Your task to perform on an android device: see creations saved in the google photos Image 0: 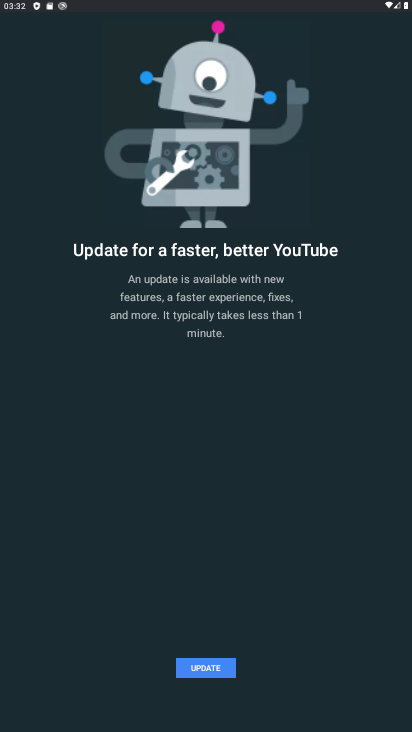
Step 0: press home button
Your task to perform on an android device: see creations saved in the google photos Image 1: 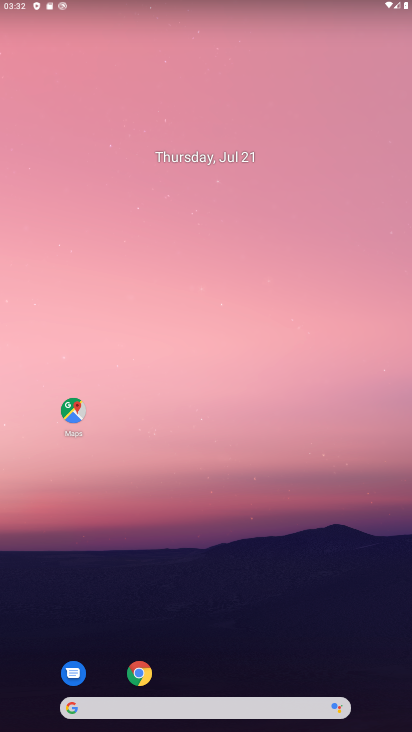
Step 1: drag from (271, 473) to (271, 143)
Your task to perform on an android device: see creations saved in the google photos Image 2: 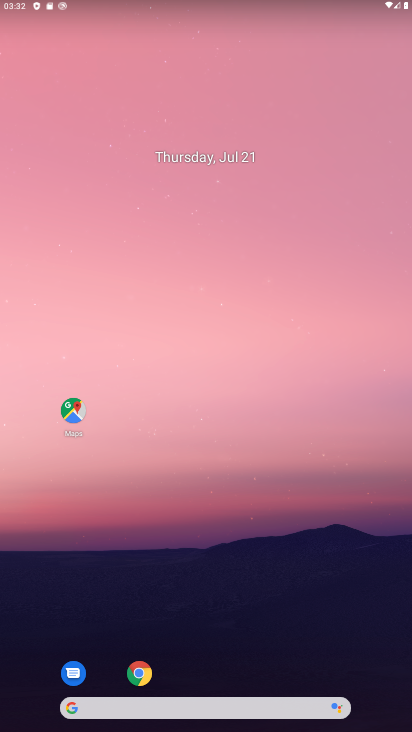
Step 2: drag from (286, 637) to (283, 107)
Your task to perform on an android device: see creations saved in the google photos Image 3: 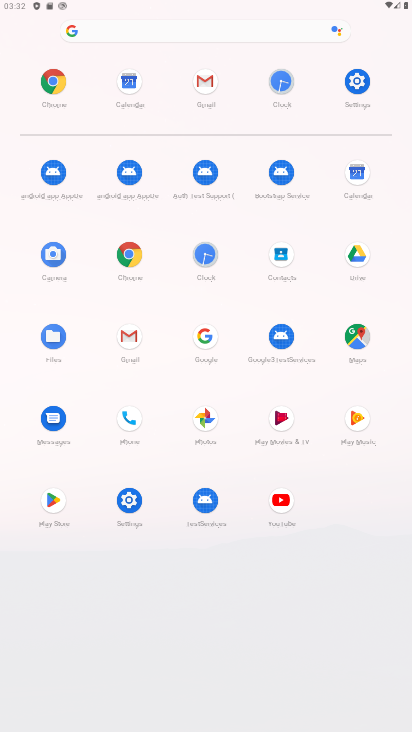
Step 3: click (205, 412)
Your task to perform on an android device: see creations saved in the google photos Image 4: 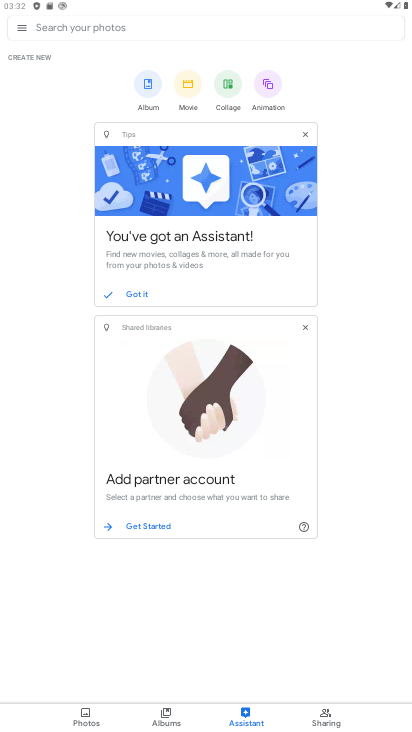
Step 4: click (315, 719)
Your task to perform on an android device: see creations saved in the google photos Image 5: 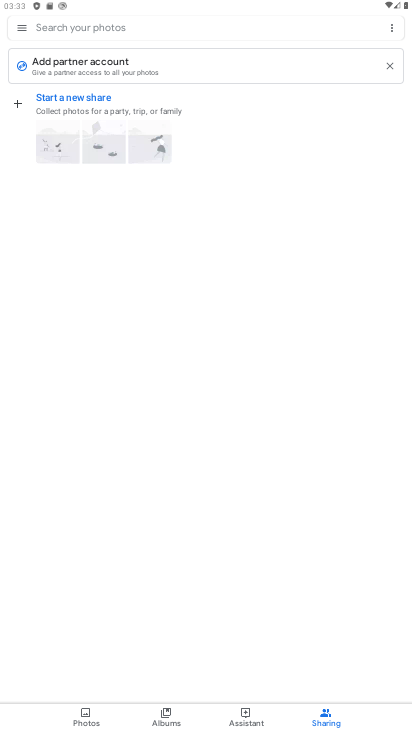
Step 5: click (158, 711)
Your task to perform on an android device: see creations saved in the google photos Image 6: 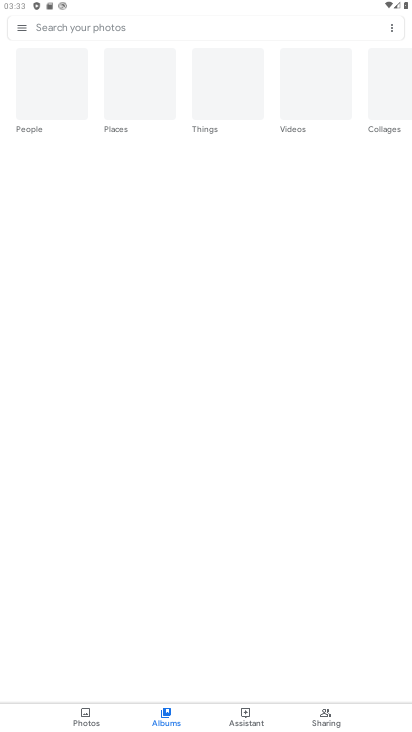
Step 6: click (89, 714)
Your task to perform on an android device: see creations saved in the google photos Image 7: 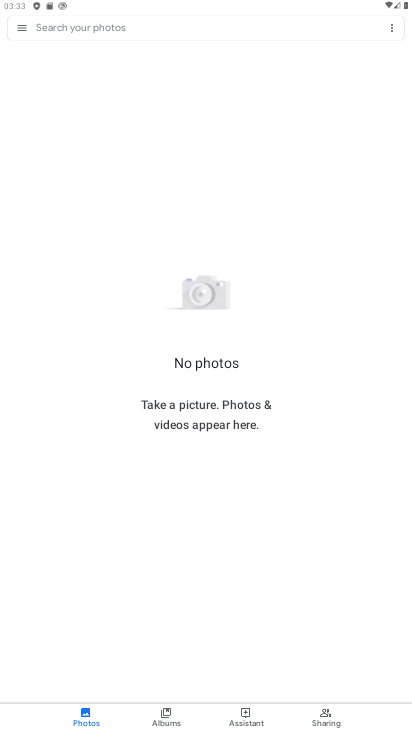
Step 7: click (157, 717)
Your task to perform on an android device: see creations saved in the google photos Image 8: 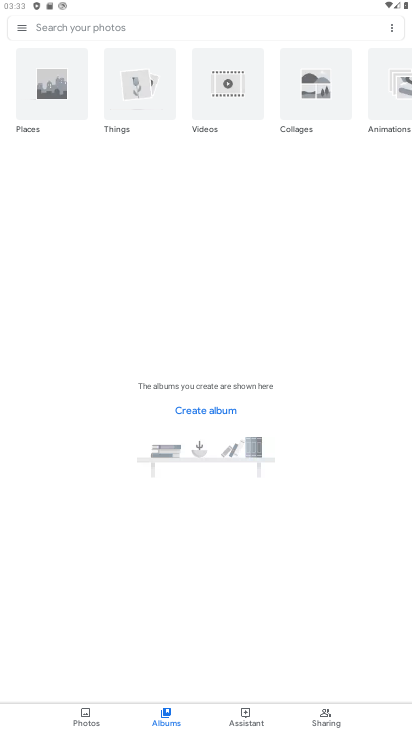
Step 8: task complete